Your task to perform on an android device: check data usage Image 0: 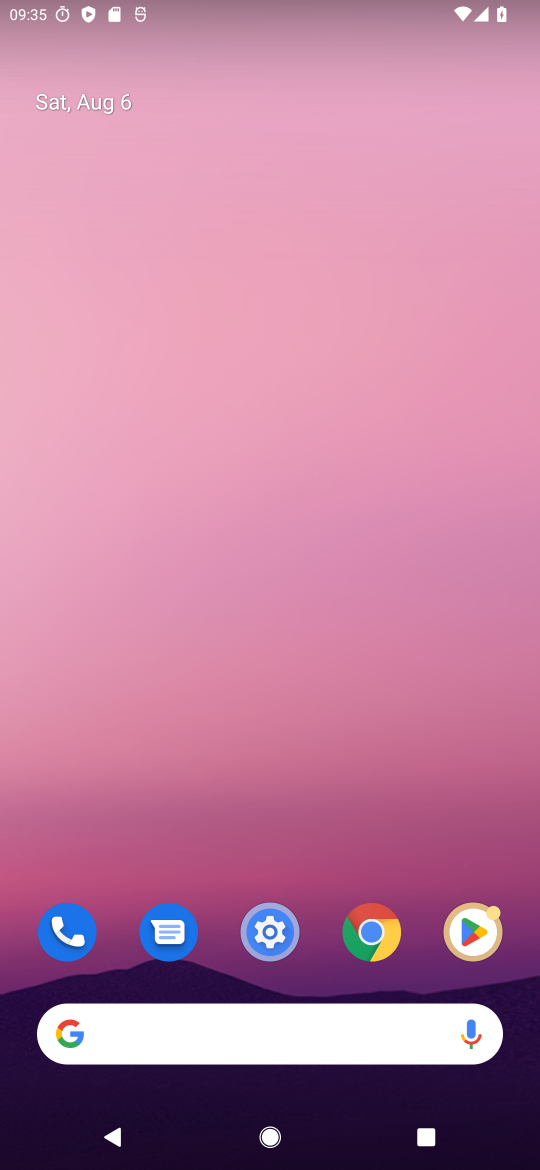
Step 0: drag from (227, 1041) to (432, 79)
Your task to perform on an android device: check data usage Image 1: 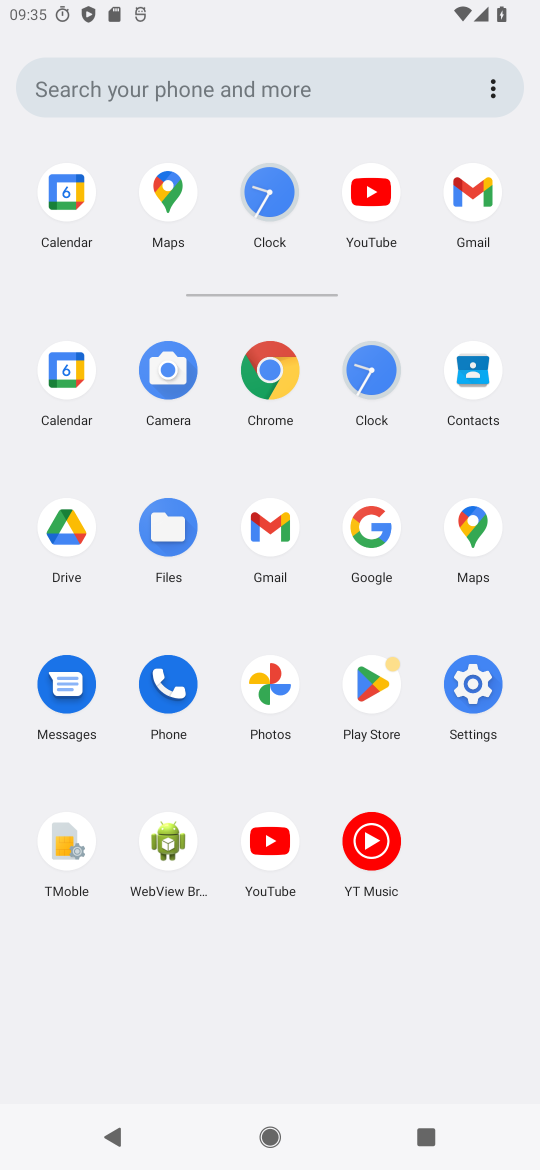
Step 1: click (480, 679)
Your task to perform on an android device: check data usage Image 2: 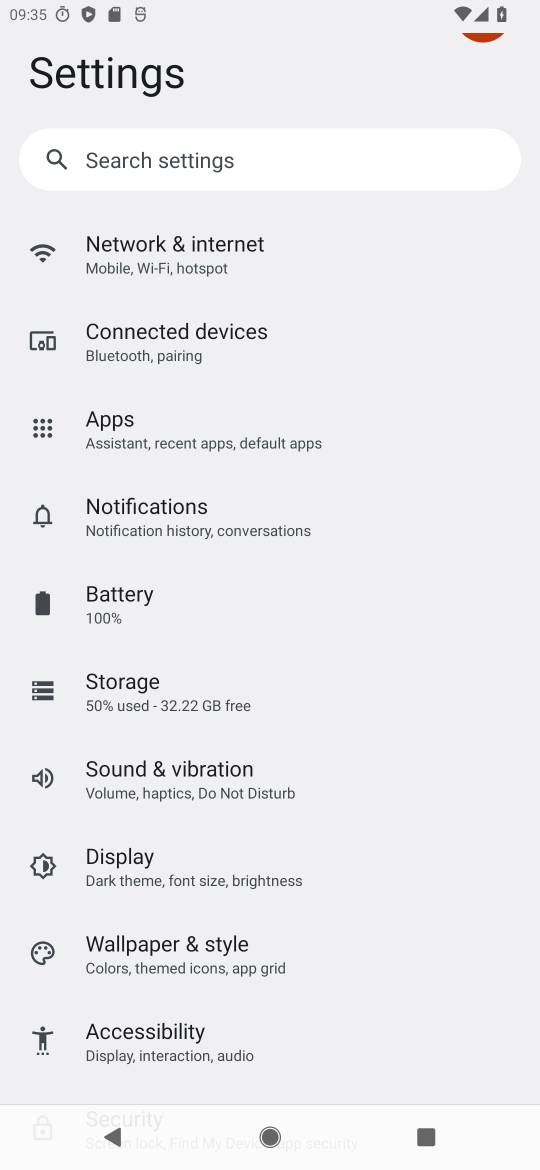
Step 2: click (223, 259)
Your task to perform on an android device: check data usage Image 3: 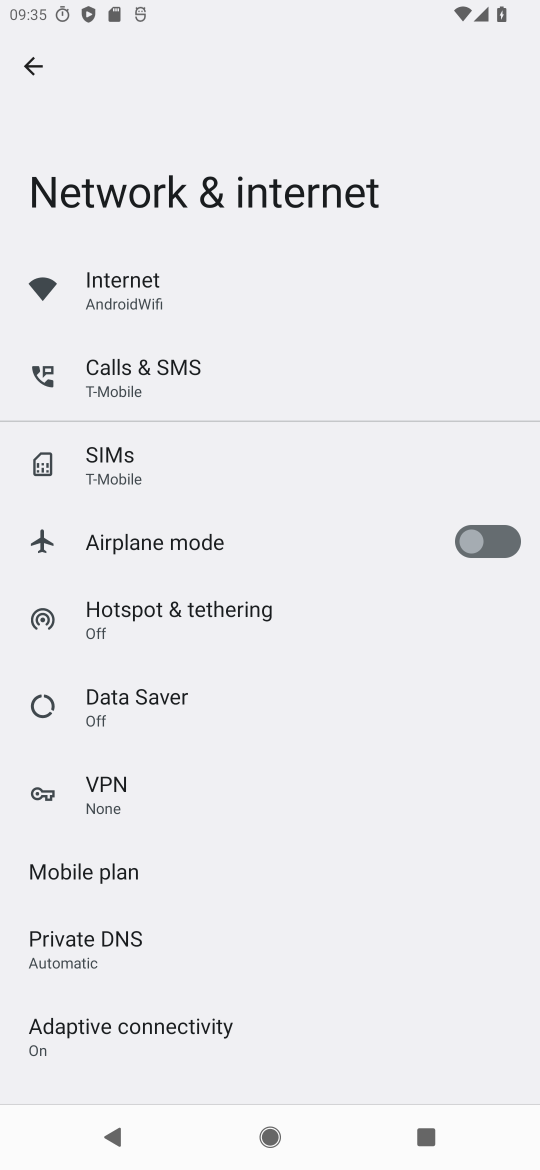
Step 3: click (158, 295)
Your task to perform on an android device: check data usage Image 4: 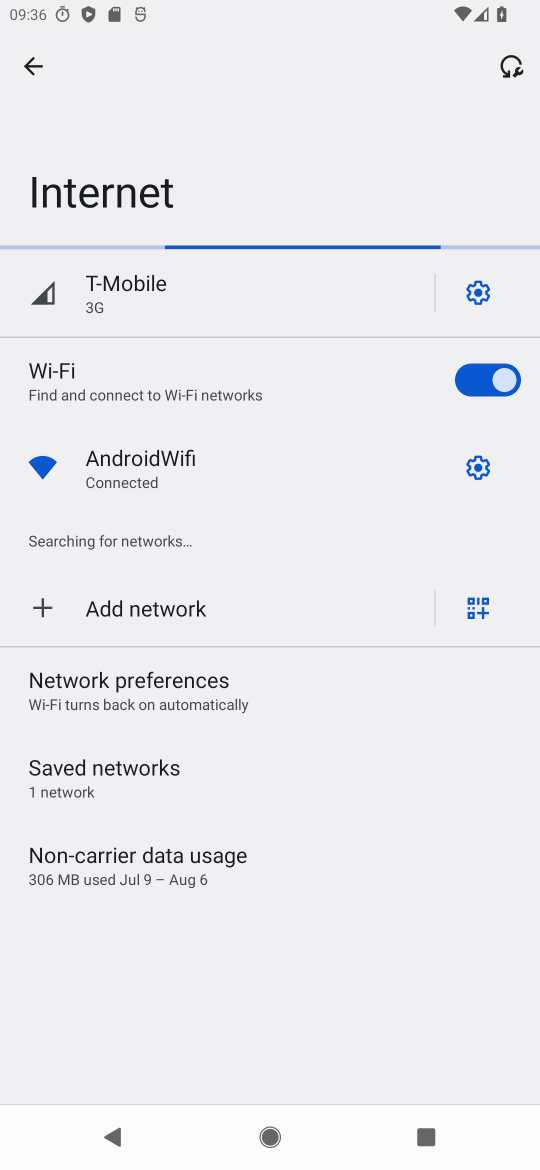
Step 4: click (476, 468)
Your task to perform on an android device: check data usage Image 5: 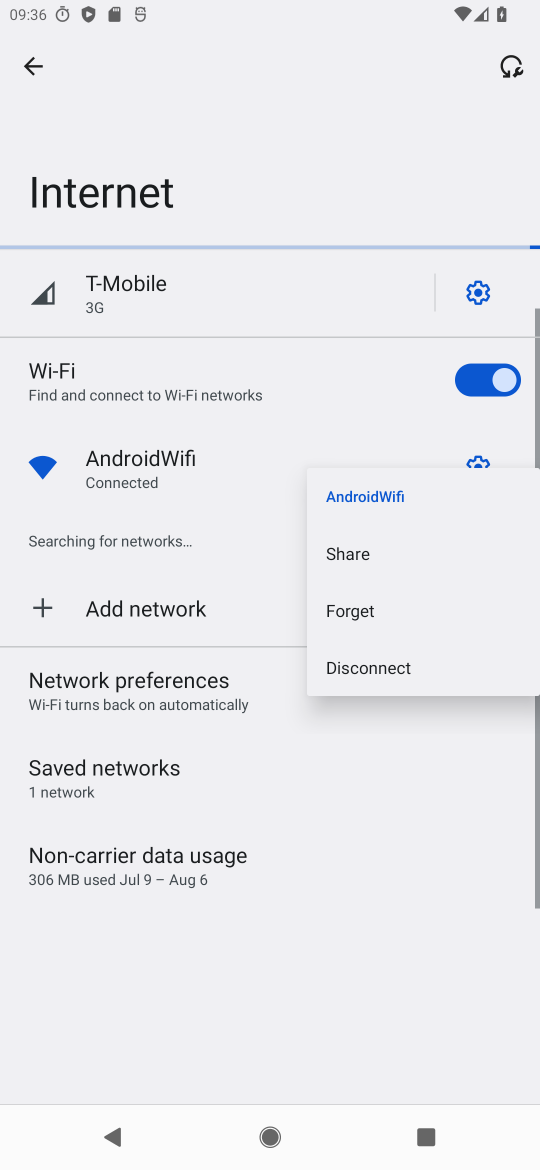
Step 5: click (485, 456)
Your task to perform on an android device: check data usage Image 6: 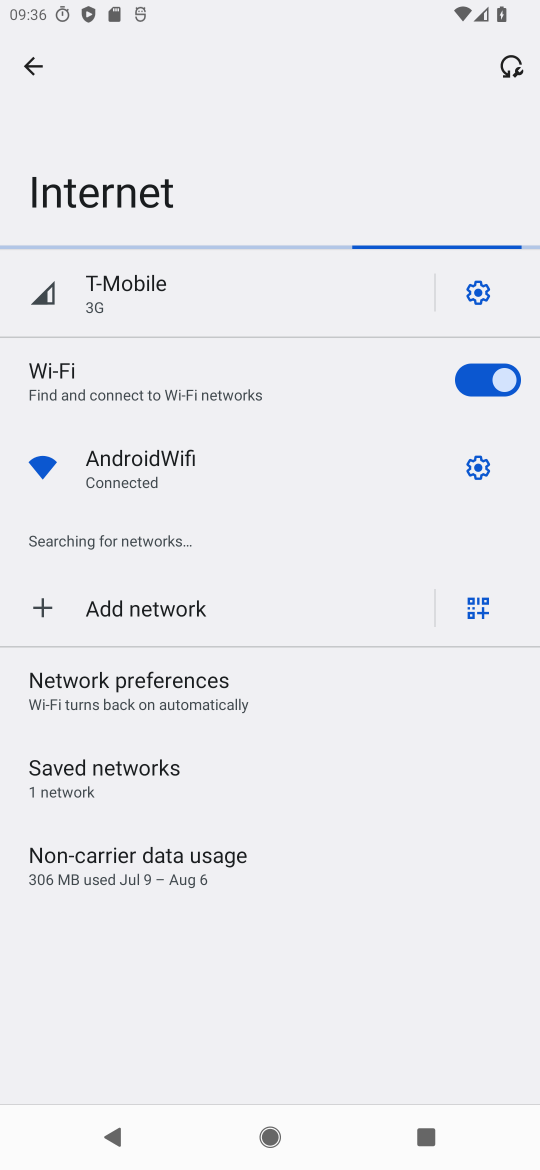
Step 6: click (484, 454)
Your task to perform on an android device: check data usage Image 7: 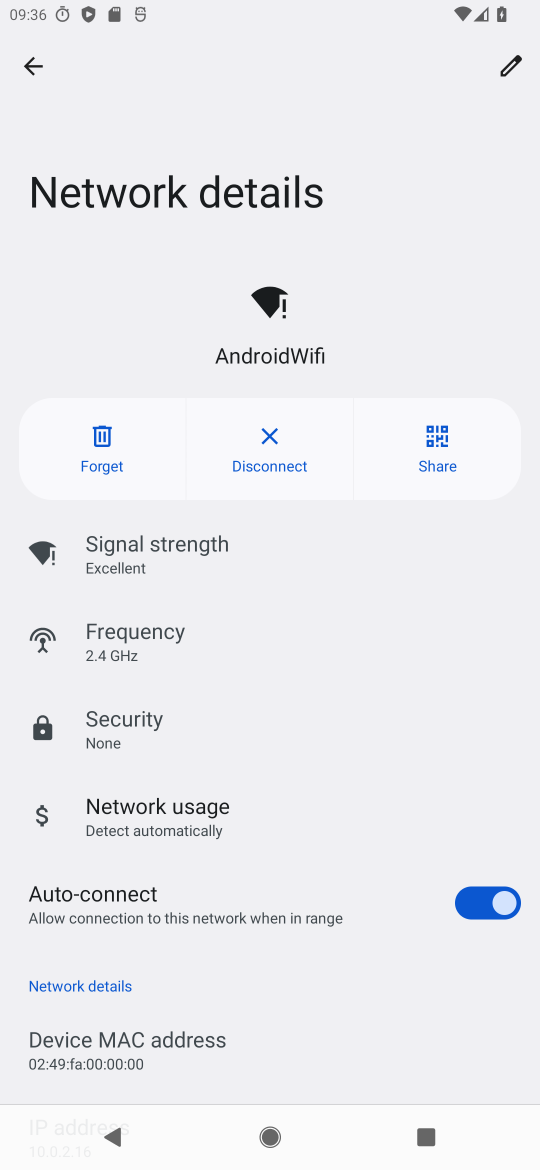
Step 7: task complete